Your task to perform on an android device: Search for the best custom wallets on Etsy. Image 0: 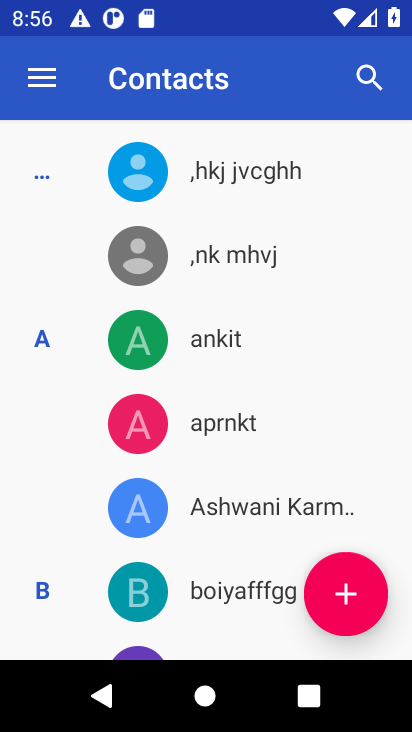
Step 0: click (227, 270)
Your task to perform on an android device: Search for the best custom wallets on Etsy. Image 1: 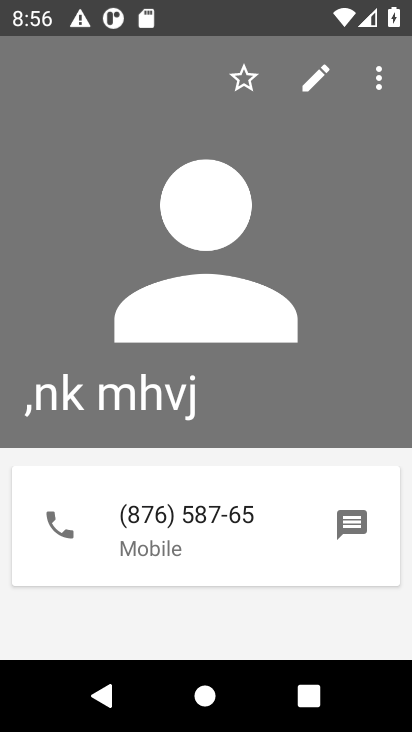
Step 1: task complete